Your task to perform on an android device: uninstall "Indeed Job Search" Image 0: 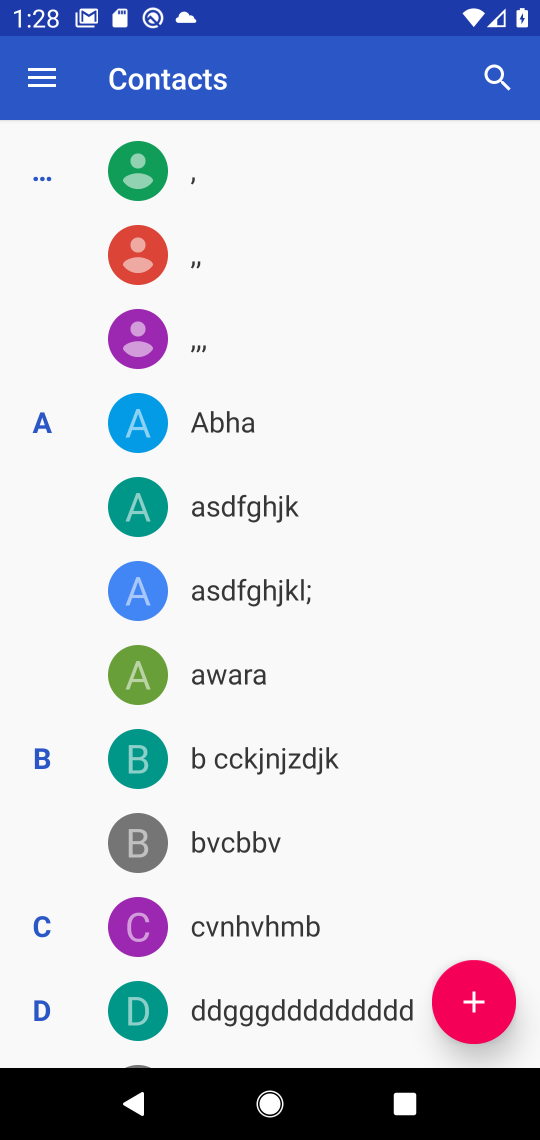
Step 0: press home button
Your task to perform on an android device: uninstall "Indeed Job Search" Image 1: 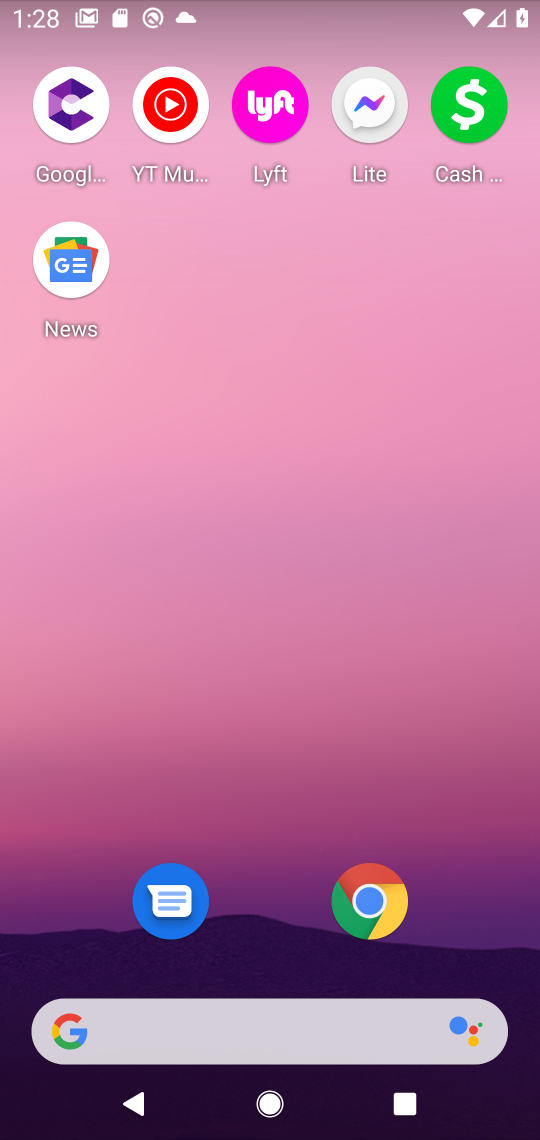
Step 1: drag from (227, 1003) to (264, 35)
Your task to perform on an android device: uninstall "Indeed Job Search" Image 2: 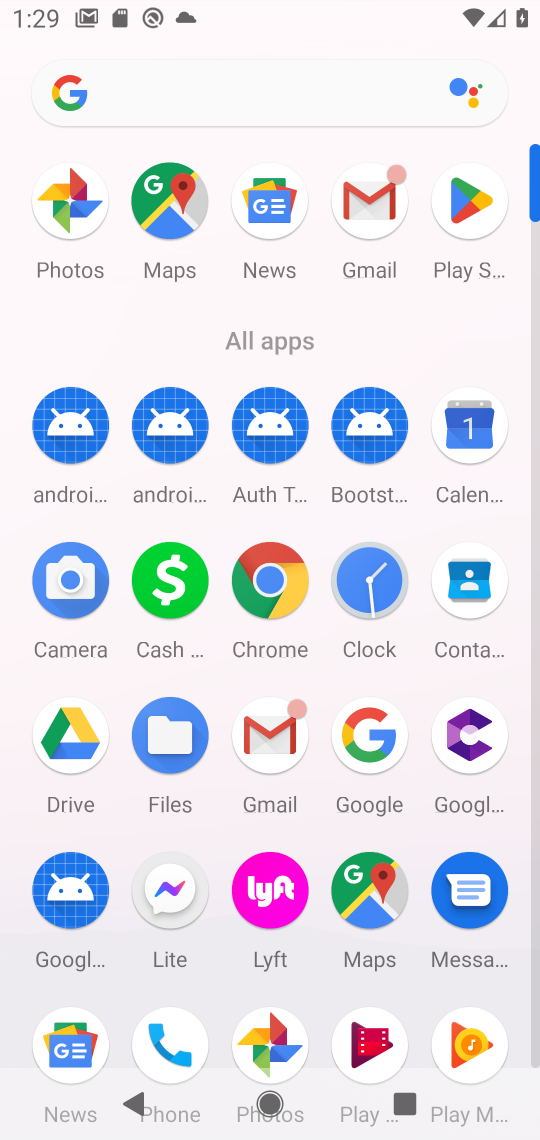
Step 2: click (470, 199)
Your task to perform on an android device: uninstall "Indeed Job Search" Image 3: 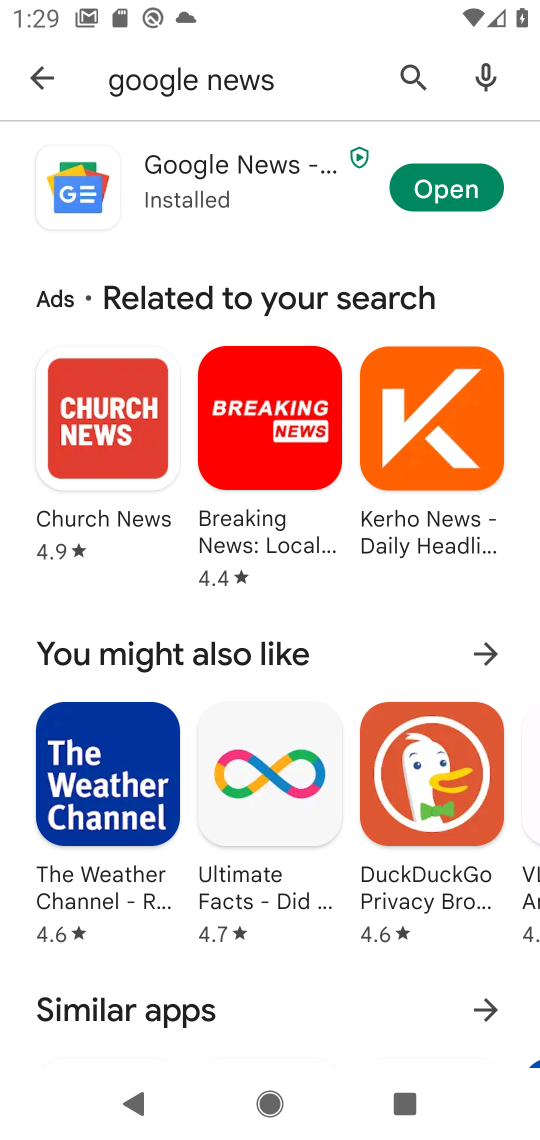
Step 3: click (416, 77)
Your task to perform on an android device: uninstall "Indeed Job Search" Image 4: 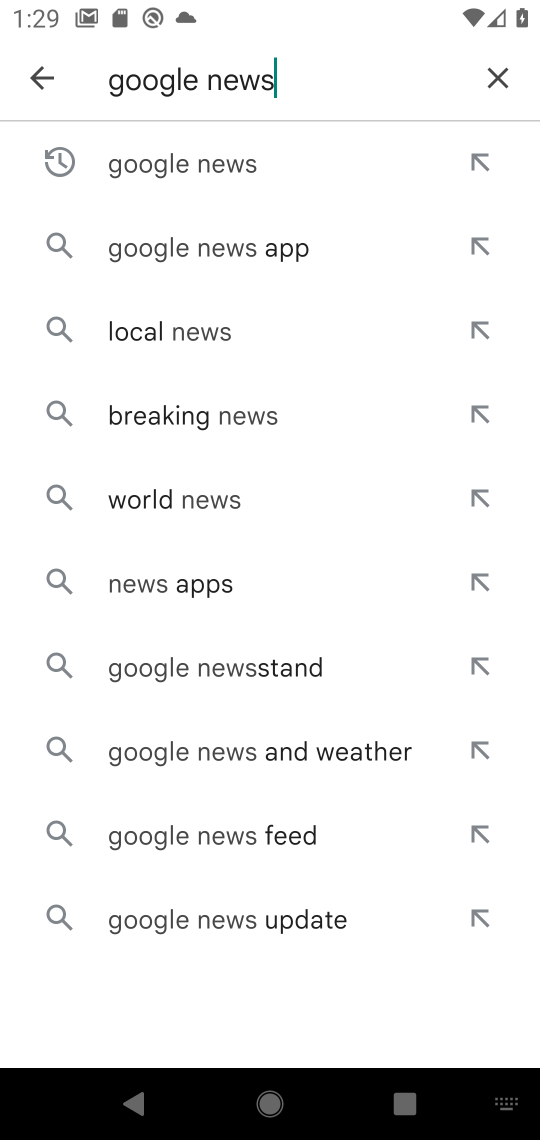
Step 4: click (488, 73)
Your task to perform on an android device: uninstall "Indeed Job Search" Image 5: 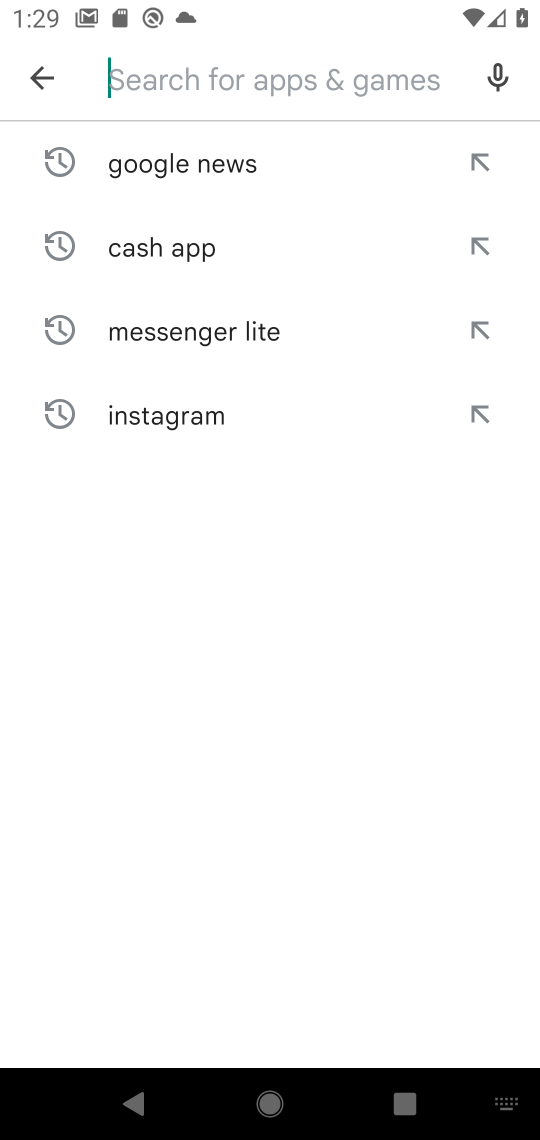
Step 5: type "Indeed Job Search"
Your task to perform on an android device: uninstall "Indeed Job Search" Image 6: 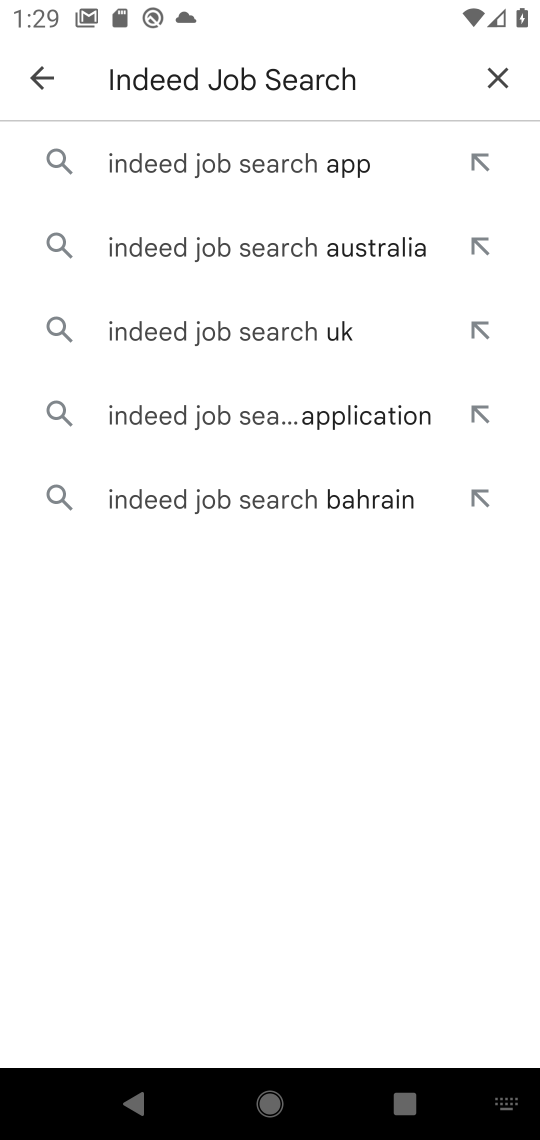
Step 6: click (253, 153)
Your task to perform on an android device: uninstall "Indeed Job Search" Image 7: 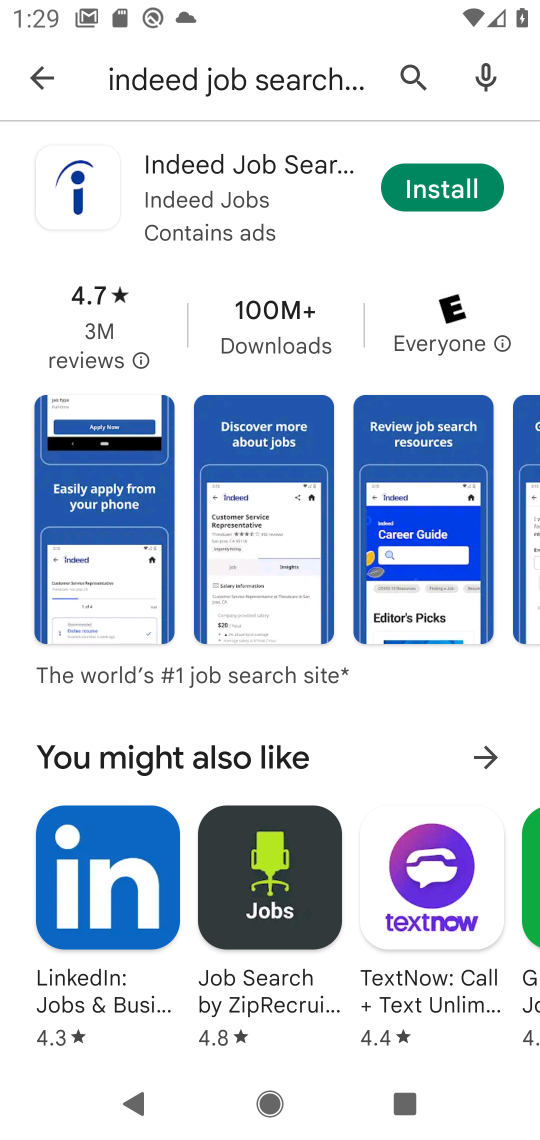
Step 7: task complete